Your task to perform on an android device: empty trash in the gmail app Image 0: 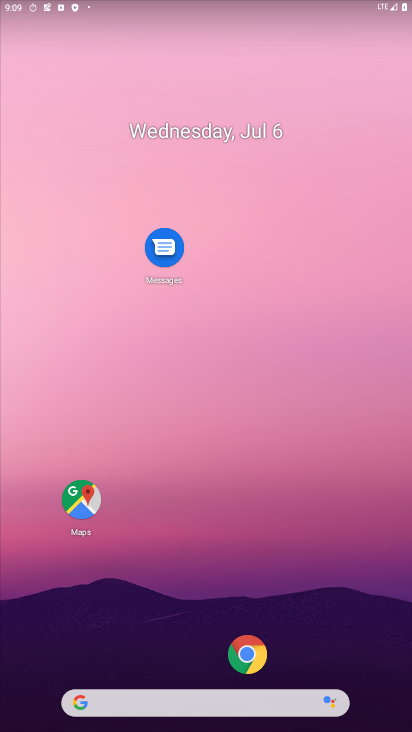
Step 0: click (162, 702)
Your task to perform on an android device: empty trash in the gmail app Image 1: 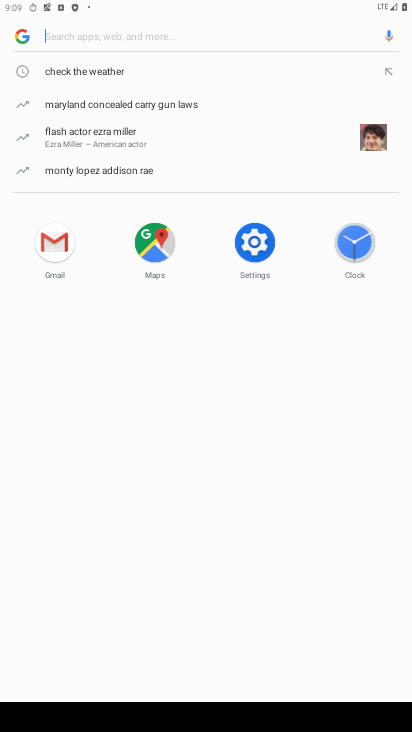
Step 1: press home button
Your task to perform on an android device: empty trash in the gmail app Image 2: 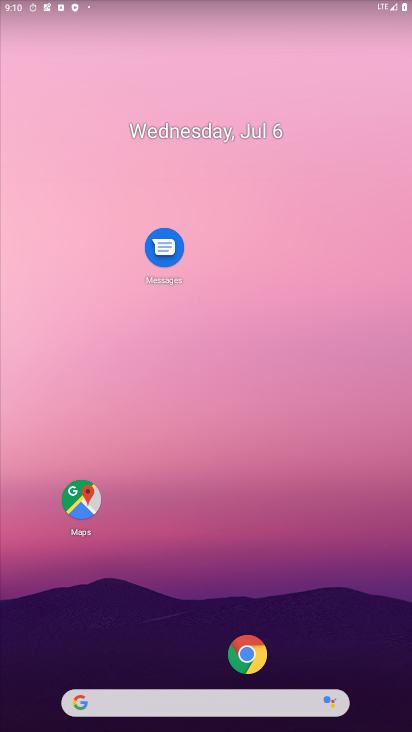
Step 2: drag from (179, 639) to (252, 81)
Your task to perform on an android device: empty trash in the gmail app Image 3: 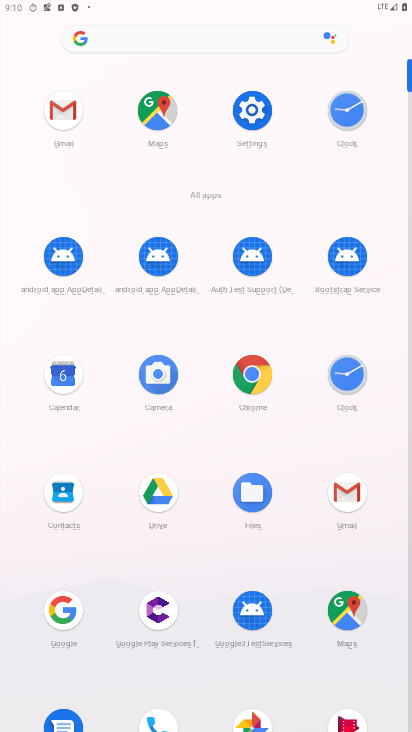
Step 3: click (74, 118)
Your task to perform on an android device: empty trash in the gmail app Image 4: 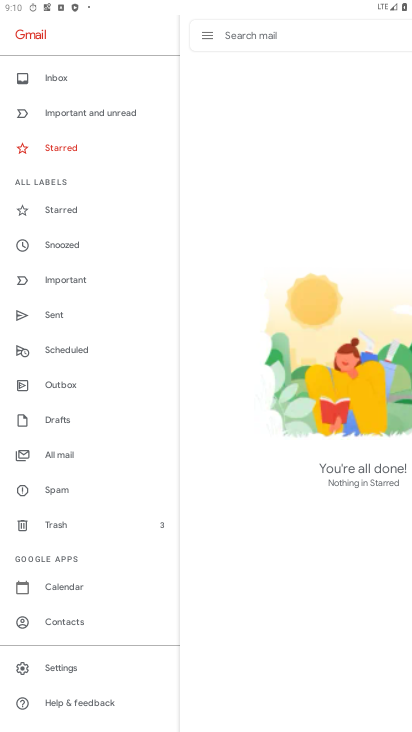
Step 4: click (110, 524)
Your task to perform on an android device: empty trash in the gmail app Image 5: 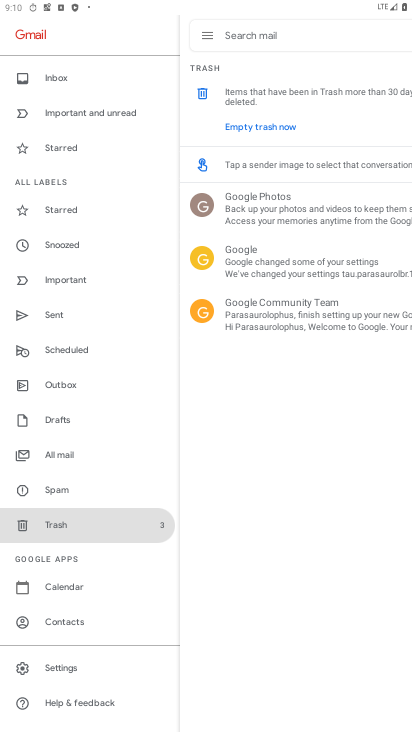
Step 5: click (281, 121)
Your task to perform on an android device: empty trash in the gmail app Image 6: 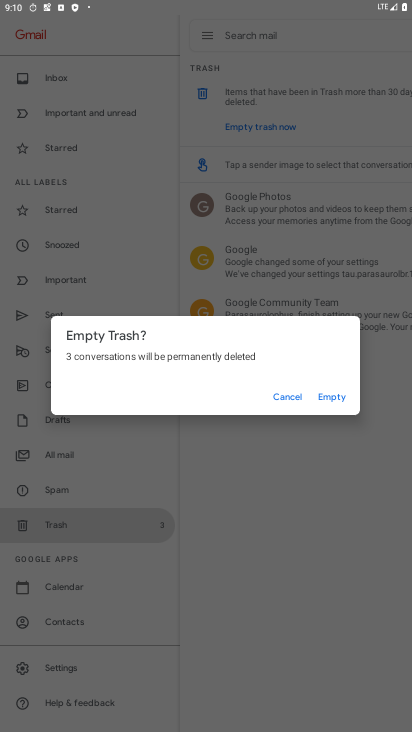
Step 6: click (343, 397)
Your task to perform on an android device: empty trash in the gmail app Image 7: 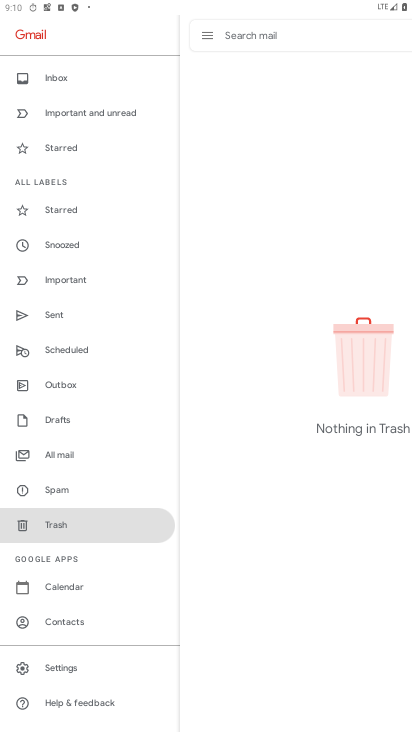
Step 7: task complete